Your task to perform on an android device: Open Google Chrome and click the shortcut for Amazon.com Image 0: 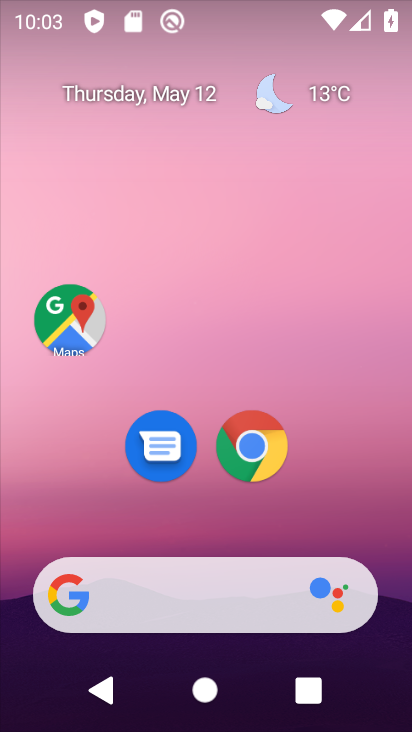
Step 0: task complete